Your task to perform on an android device: toggle translation in the chrome app Image 0: 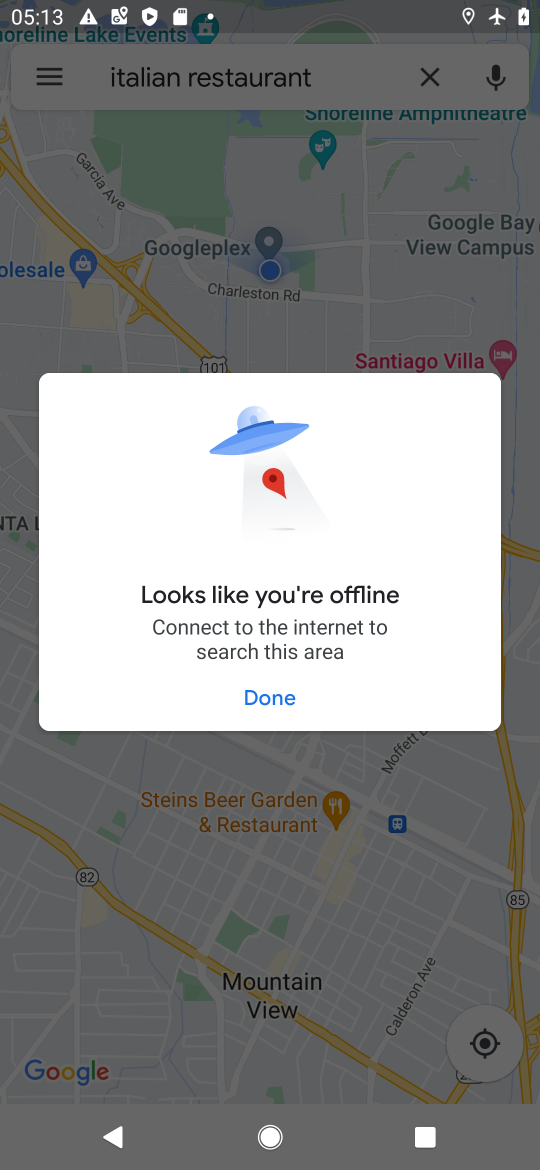
Step 0: press home button
Your task to perform on an android device: toggle translation in the chrome app Image 1: 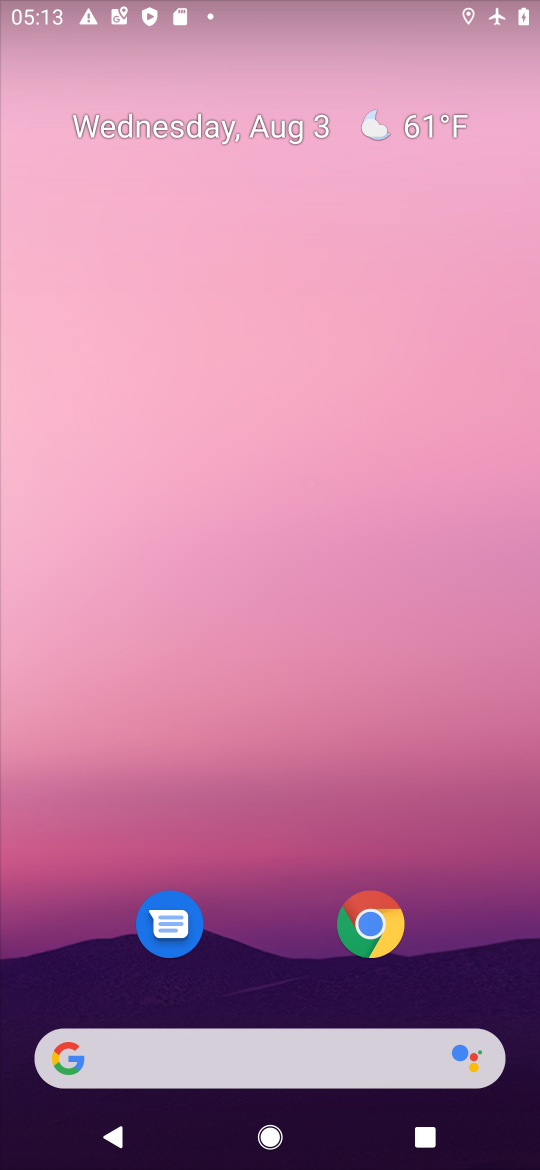
Step 1: click (361, 891)
Your task to perform on an android device: toggle translation in the chrome app Image 2: 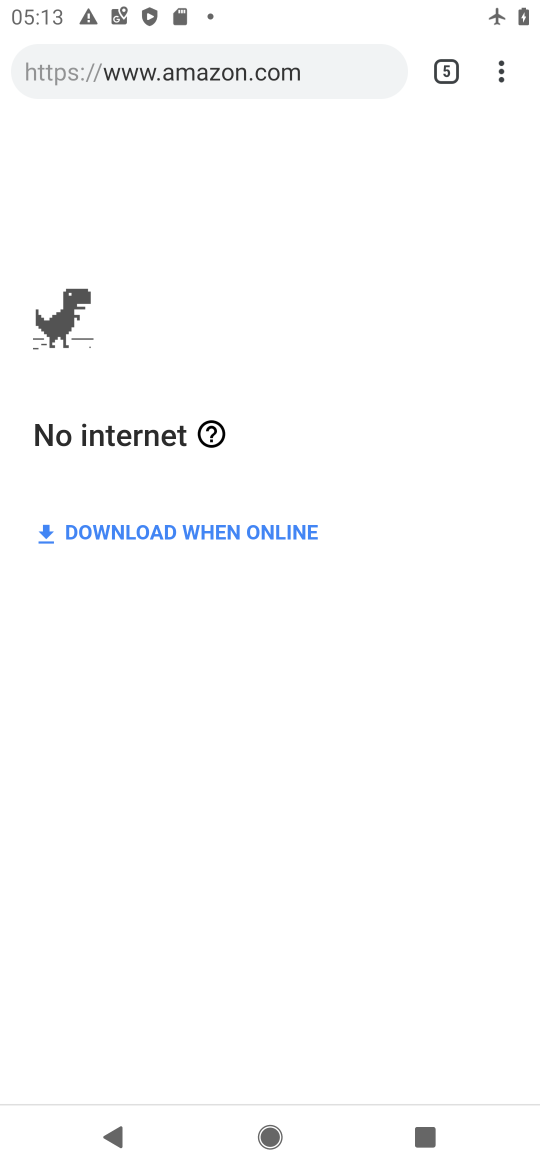
Step 2: click (490, 80)
Your task to perform on an android device: toggle translation in the chrome app Image 3: 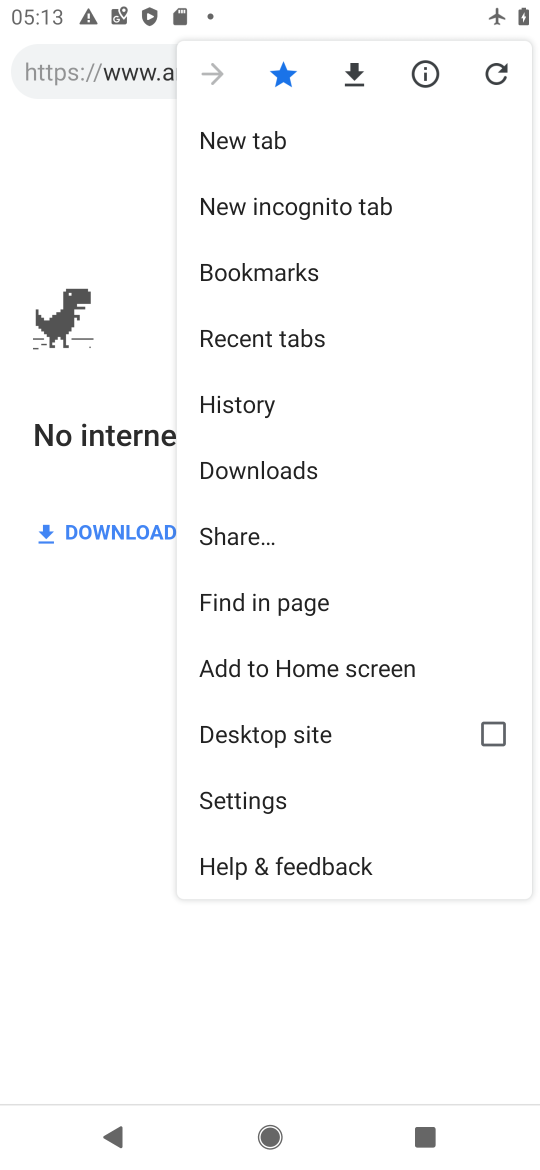
Step 3: click (273, 808)
Your task to perform on an android device: toggle translation in the chrome app Image 4: 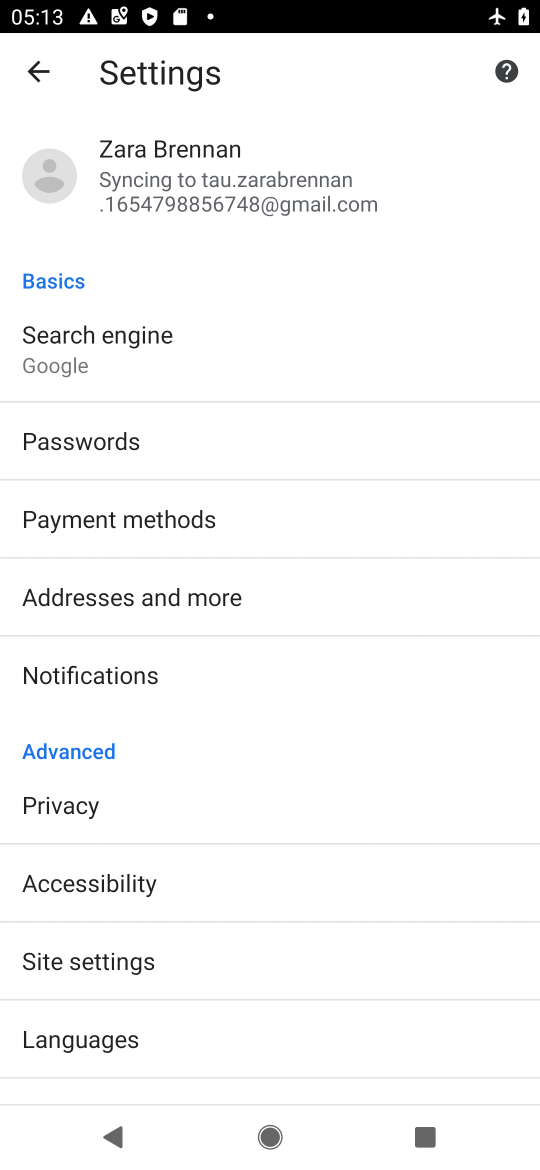
Step 4: click (144, 1020)
Your task to perform on an android device: toggle translation in the chrome app Image 5: 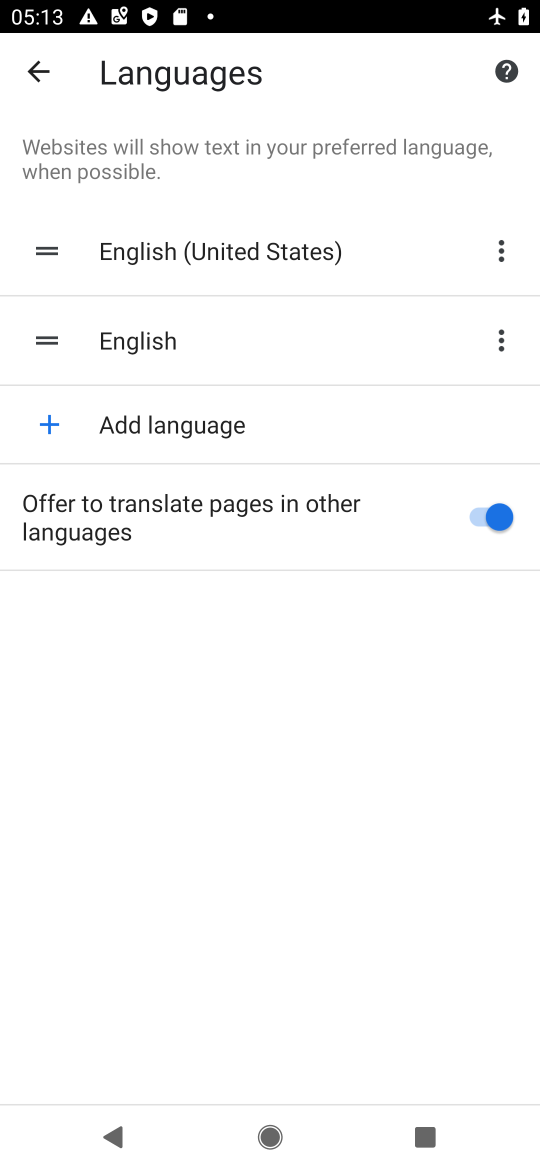
Step 5: click (475, 510)
Your task to perform on an android device: toggle translation in the chrome app Image 6: 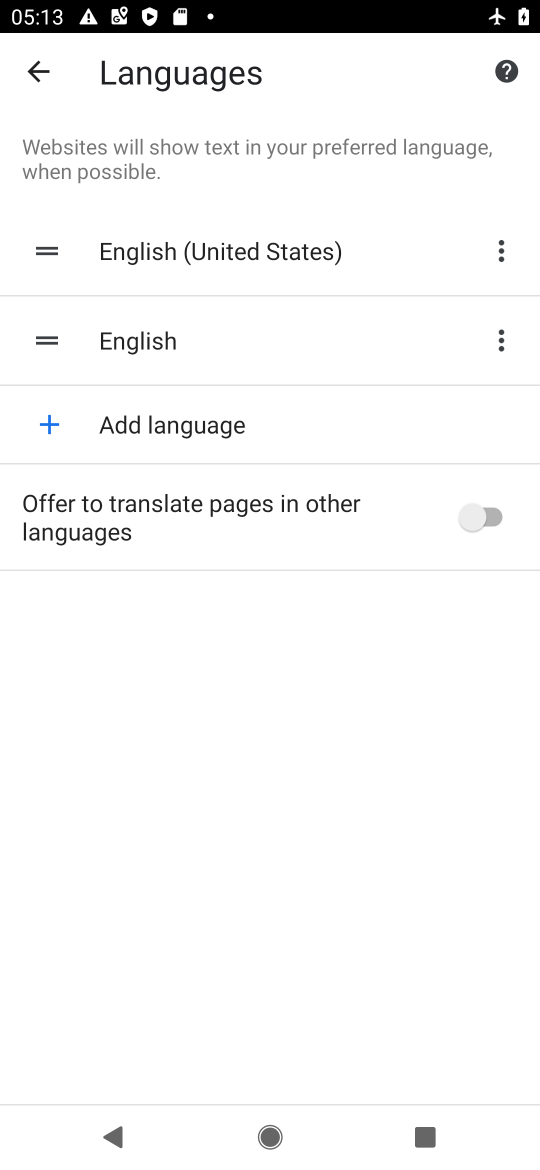
Step 6: task complete